Your task to perform on an android device: open device folders in google photos Image 0: 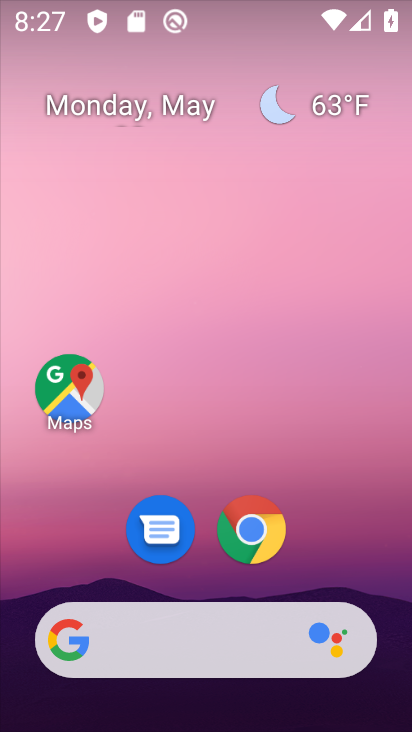
Step 0: drag from (124, 559) to (204, 69)
Your task to perform on an android device: open device folders in google photos Image 1: 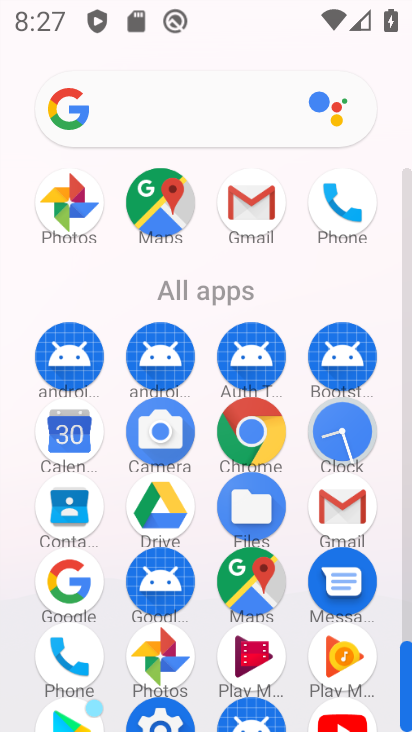
Step 1: drag from (225, 615) to (269, 296)
Your task to perform on an android device: open device folders in google photos Image 2: 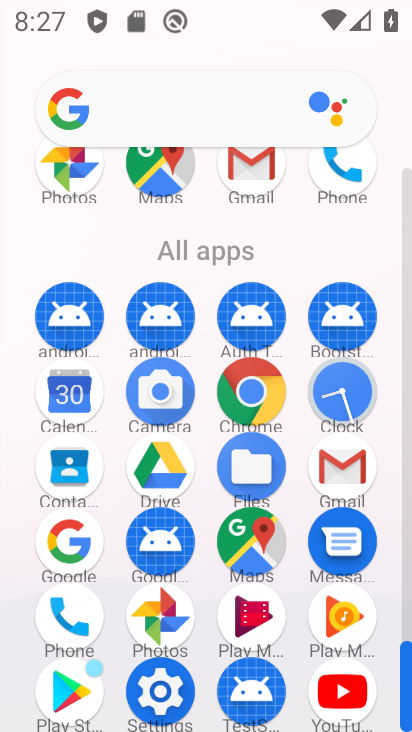
Step 2: click (166, 619)
Your task to perform on an android device: open device folders in google photos Image 3: 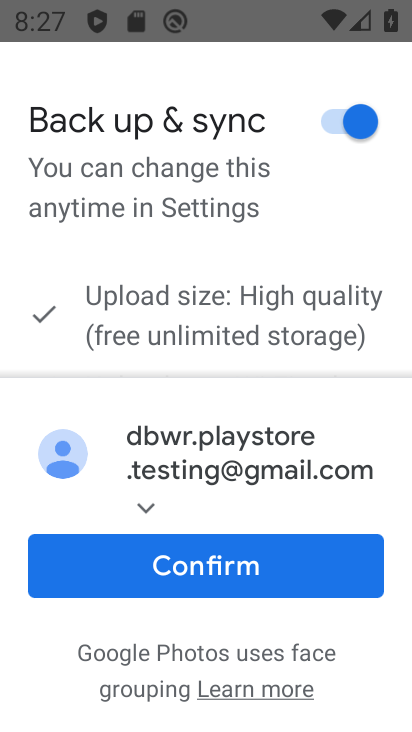
Step 3: click (217, 551)
Your task to perform on an android device: open device folders in google photos Image 4: 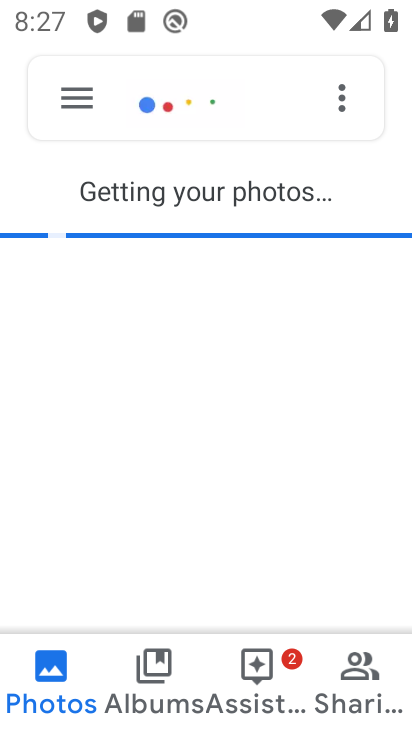
Step 4: click (86, 105)
Your task to perform on an android device: open device folders in google photos Image 5: 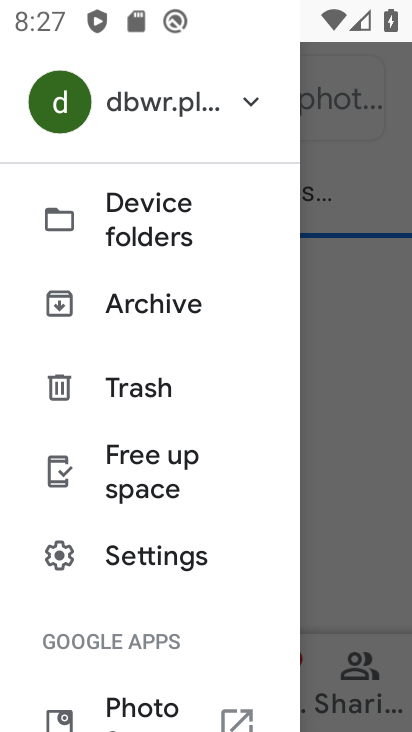
Step 5: click (175, 234)
Your task to perform on an android device: open device folders in google photos Image 6: 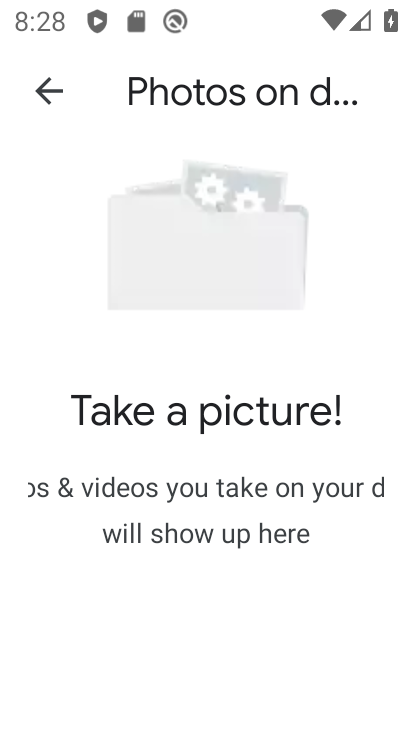
Step 6: task complete